Your task to perform on an android device: turn off wifi Image 0: 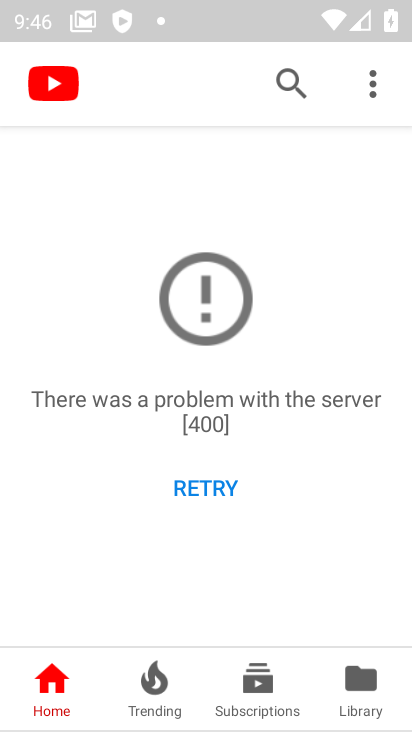
Step 0: press home button
Your task to perform on an android device: turn off wifi Image 1: 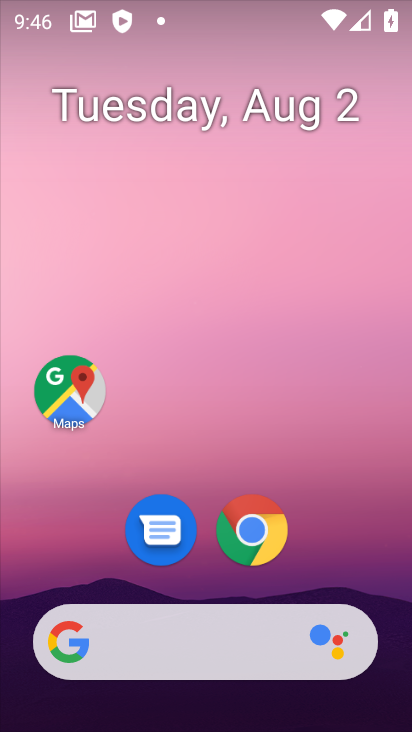
Step 1: drag from (146, 5) to (241, 525)
Your task to perform on an android device: turn off wifi Image 2: 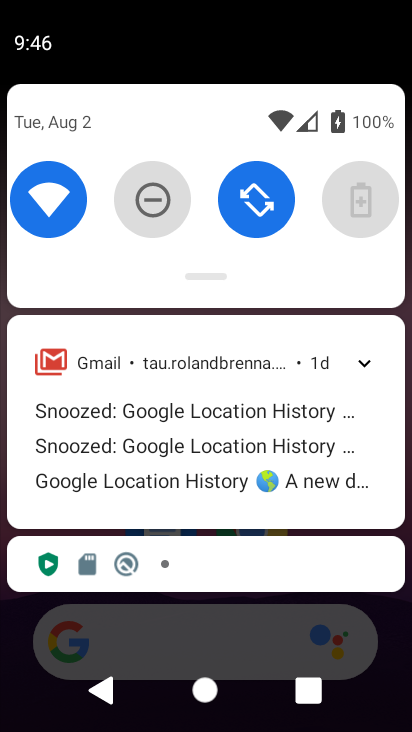
Step 2: drag from (154, 258) to (210, 610)
Your task to perform on an android device: turn off wifi Image 3: 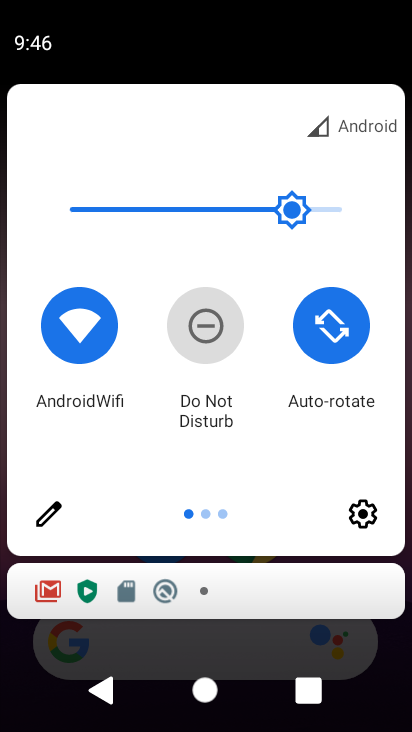
Step 3: drag from (167, 372) to (2, 343)
Your task to perform on an android device: turn off wifi Image 4: 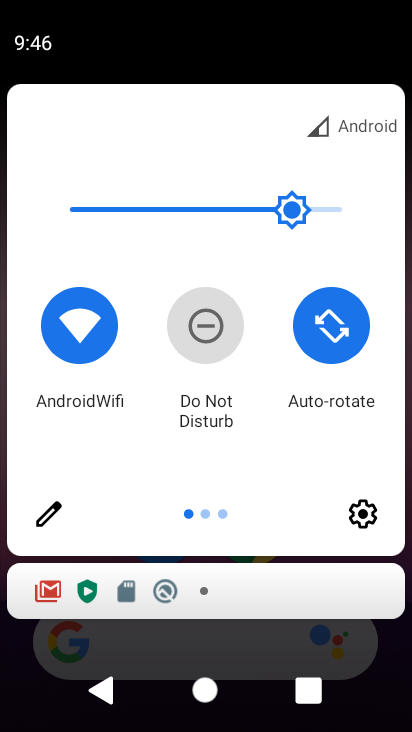
Step 4: click (67, 317)
Your task to perform on an android device: turn off wifi Image 5: 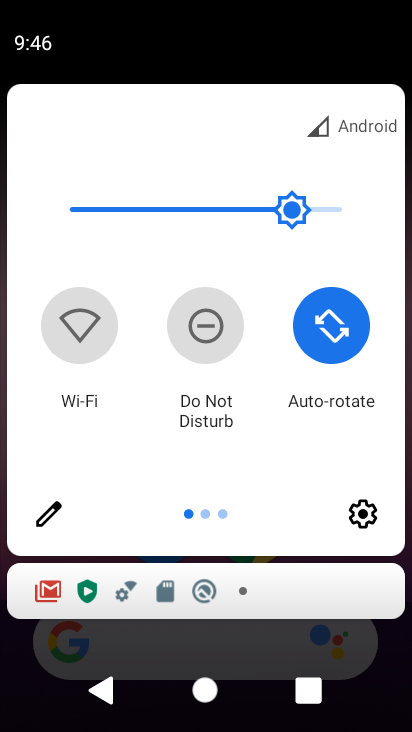
Step 5: task complete